Your task to perform on an android device: Show me the alarms in the clock app Image 0: 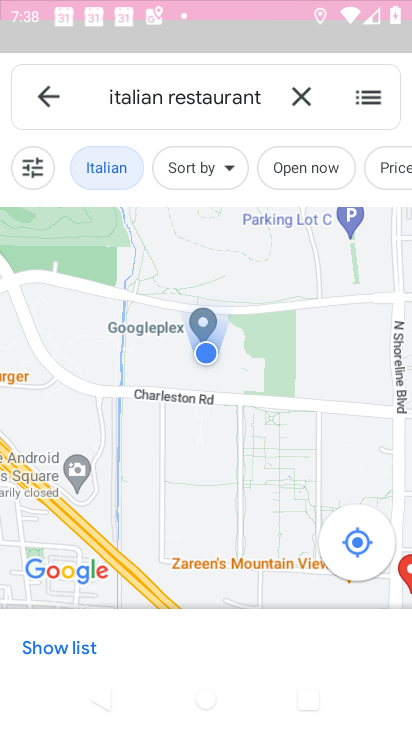
Step 0: drag from (151, 207) to (121, 164)
Your task to perform on an android device: Show me the alarms in the clock app Image 1: 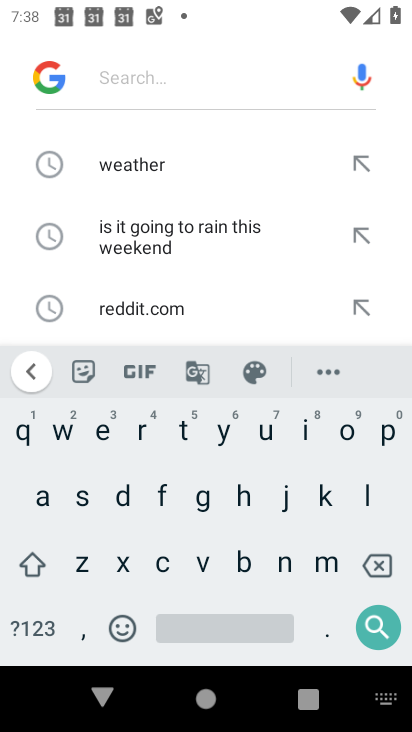
Step 1: press home button
Your task to perform on an android device: Show me the alarms in the clock app Image 2: 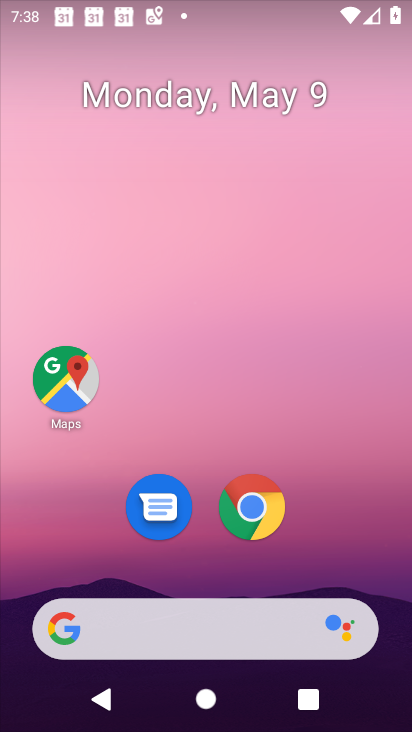
Step 2: drag from (252, 656) to (227, 312)
Your task to perform on an android device: Show me the alarms in the clock app Image 3: 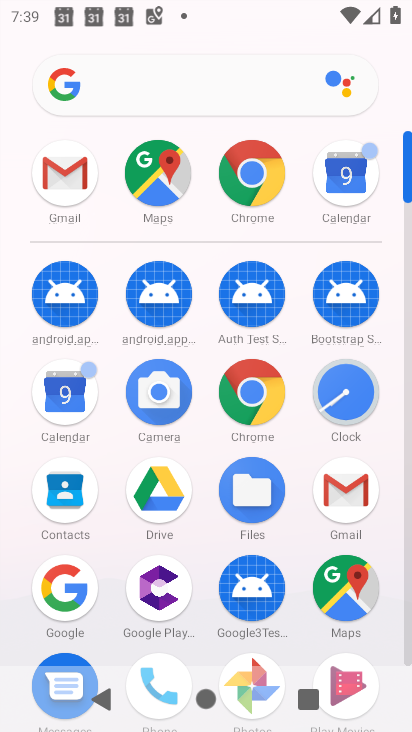
Step 3: click (355, 389)
Your task to perform on an android device: Show me the alarms in the clock app Image 4: 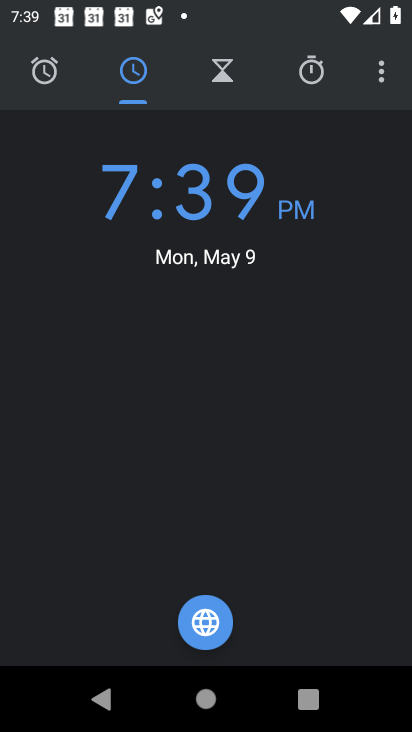
Step 4: click (38, 84)
Your task to perform on an android device: Show me the alarms in the clock app Image 5: 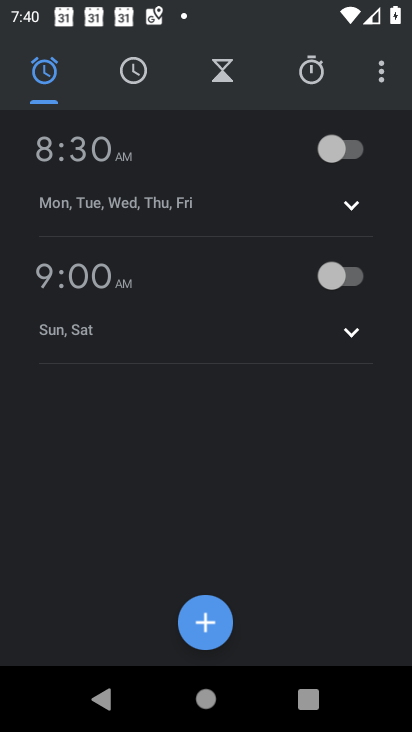
Step 5: task complete